Your task to perform on an android device: change the clock display to show seconds Image 0: 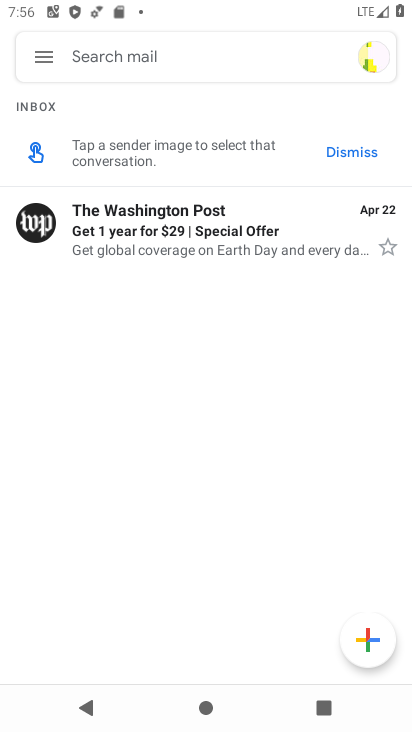
Step 0: press home button
Your task to perform on an android device: change the clock display to show seconds Image 1: 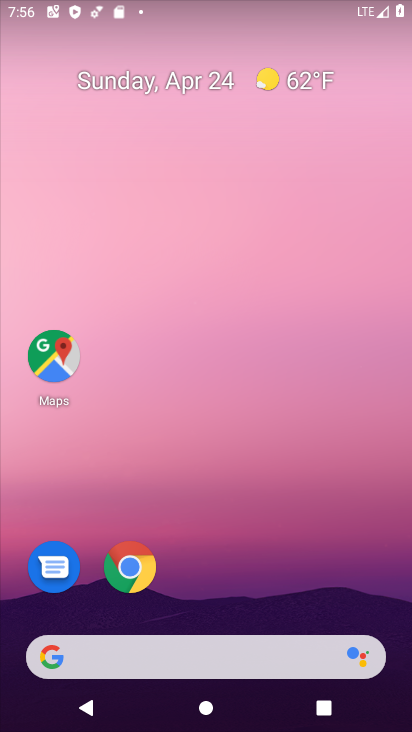
Step 1: drag from (229, 576) to (224, 47)
Your task to perform on an android device: change the clock display to show seconds Image 2: 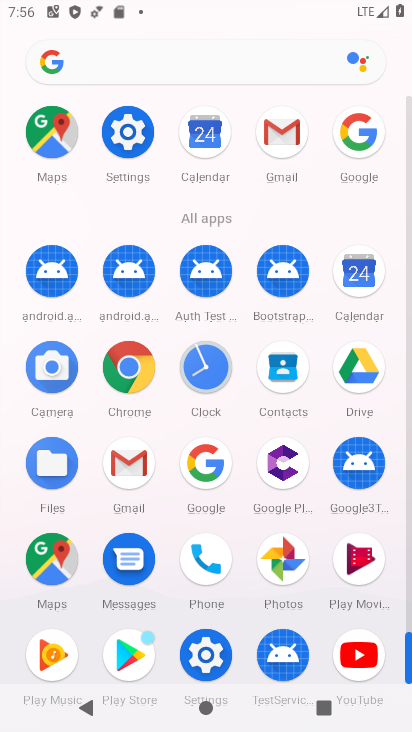
Step 2: click (206, 367)
Your task to perform on an android device: change the clock display to show seconds Image 3: 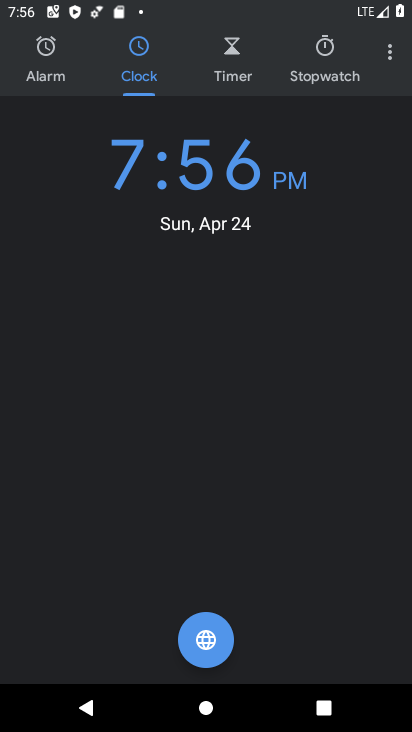
Step 3: click (390, 55)
Your task to perform on an android device: change the clock display to show seconds Image 4: 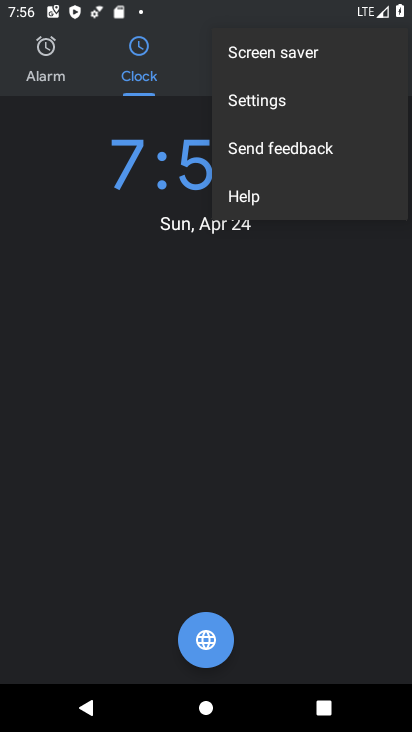
Step 4: click (277, 104)
Your task to perform on an android device: change the clock display to show seconds Image 5: 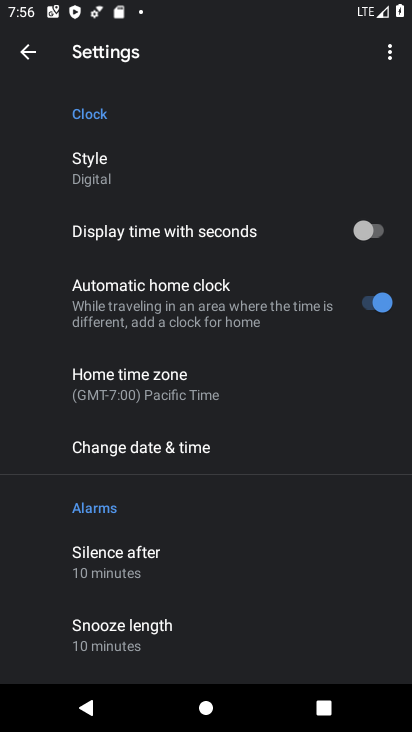
Step 5: click (361, 230)
Your task to perform on an android device: change the clock display to show seconds Image 6: 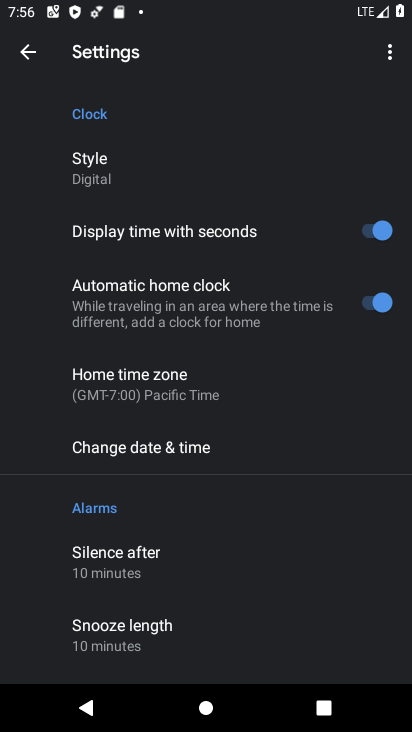
Step 6: task complete